Your task to perform on an android device: Go to calendar. Show me events next week Image 0: 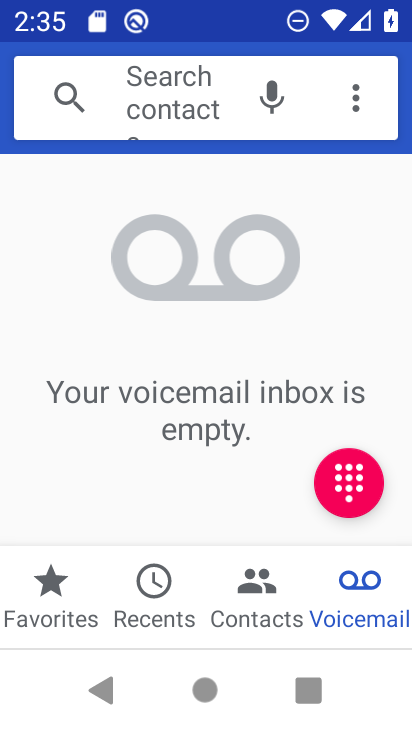
Step 0: press home button
Your task to perform on an android device: Go to calendar. Show me events next week Image 1: 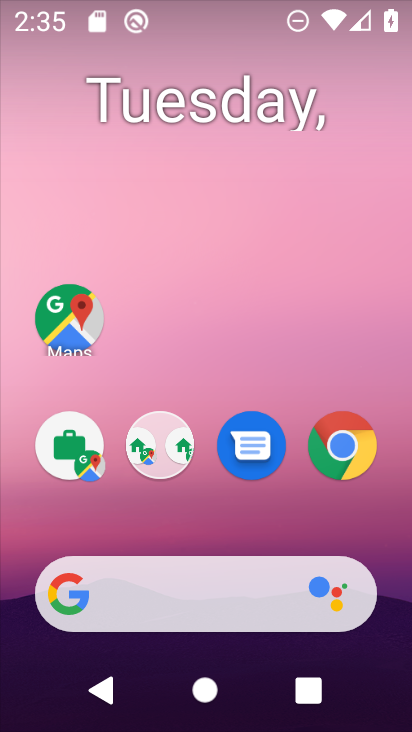
Step 1: drag from (271, 521) to (347, 193)
Your task to perform on an android device: Go to calendar. Show me events next week Image 2: 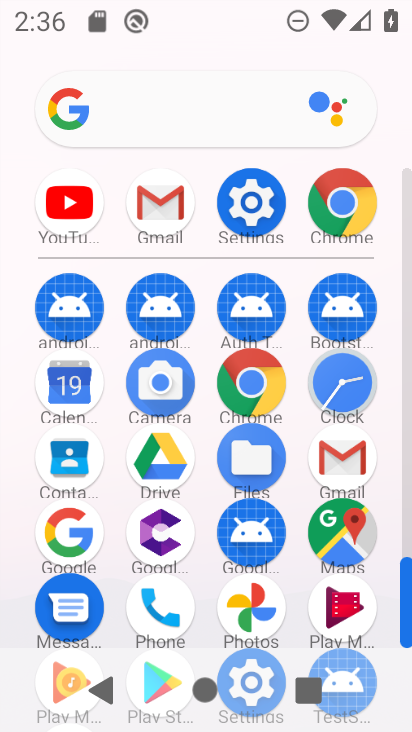
Step 2: click (62, 392)
Your task to perform on an android device: Go to calendar. Show me events next week Image 3: 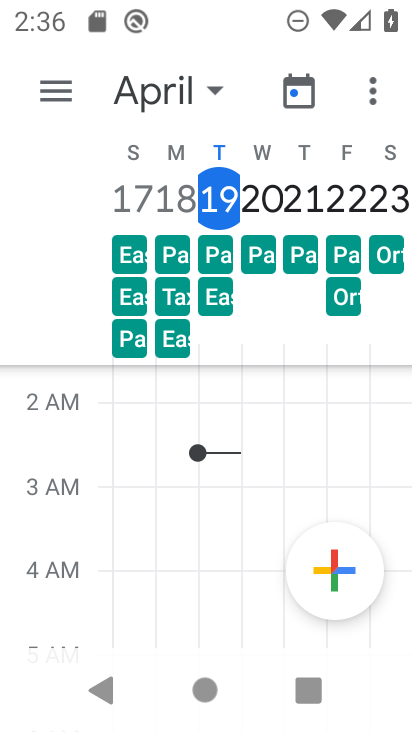
Step 3: click (28, 111)
Your task to perform on an android device: Go to calendar. Show me events next week Image 4: 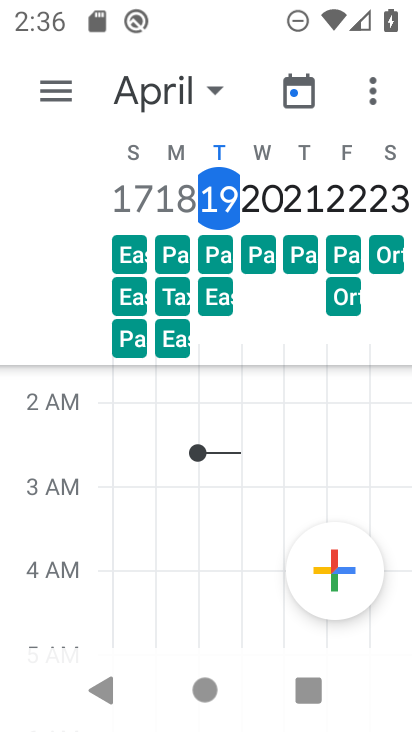
Step 4: click (52, 107)
Your task to perform on an android device: Go to calendar. Show me events next week Image 5: 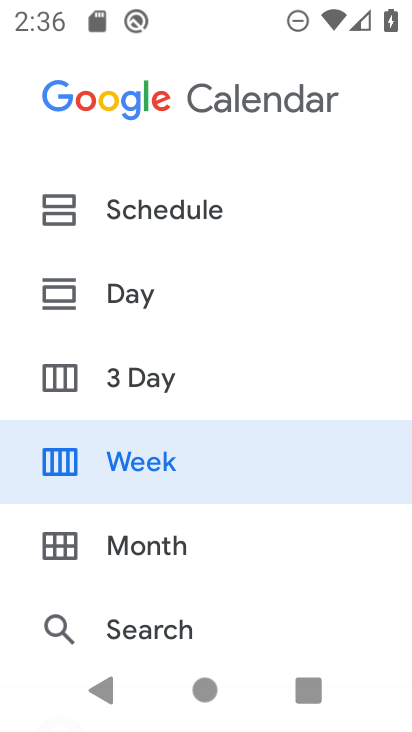
Step 5: click (165, 467)
Your task to perform on an android device: Go to calendar. Show me events next week Image 6: 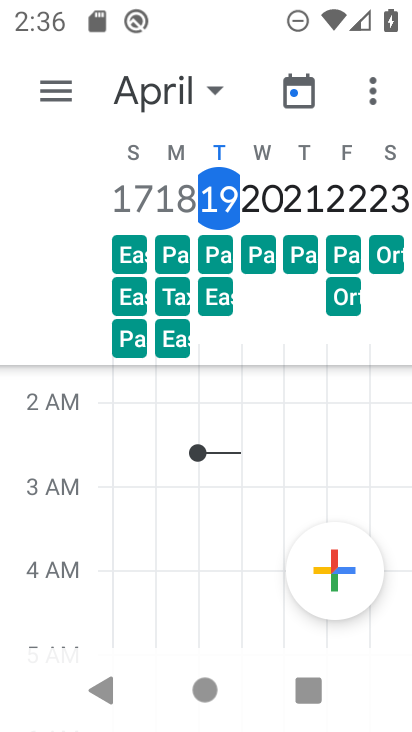
Step 6: drag from (210, 492) to (270, 235)
Your task to perform on an android device: Go to calendar. Show me events next week Image 7: 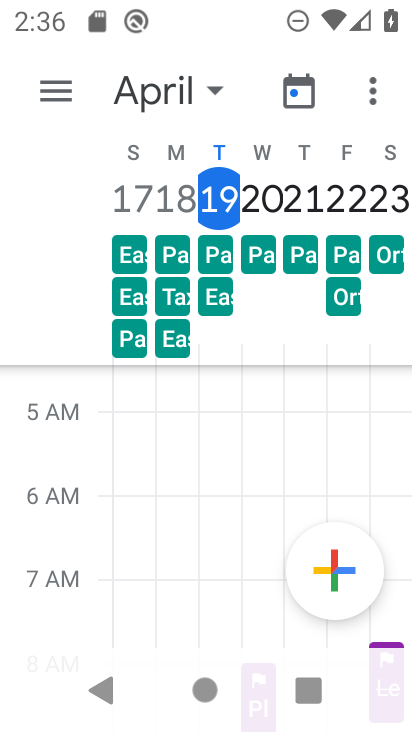
Step 7: drag from (212, 515) to (255, 309)
Your task to perform on an android device: Go to calendar. Show me events next week Image 8: 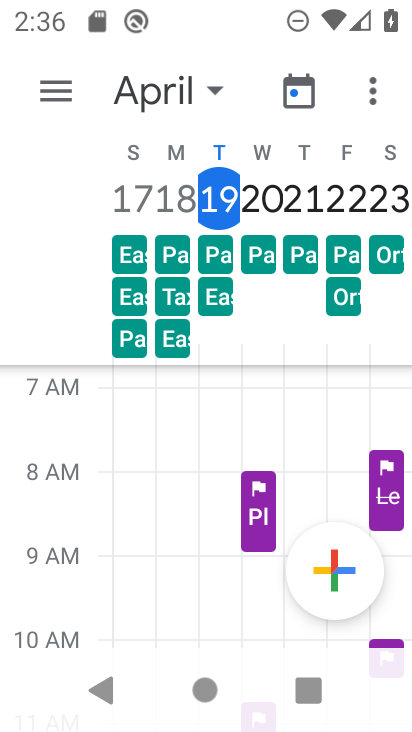
Step 8: click (217, 96)
Your task to perform on an android device: Go to calendar. Show me events next week Image 9: 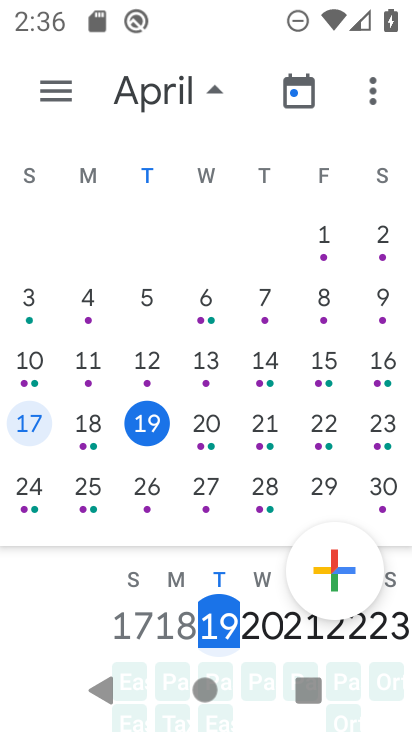
Step 9: drag from (307, 402) to (16, 401)
Your task to perform on an android device: Go to calendar. Show me events next week Image 10: 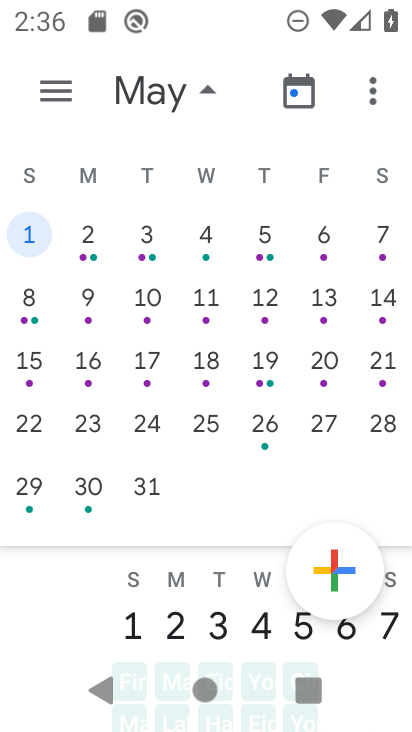
Step 10: drag from (63, 380) to (271, 401)
Your task to perform on an android device: Go to calendar. Show me events next week Image 11: 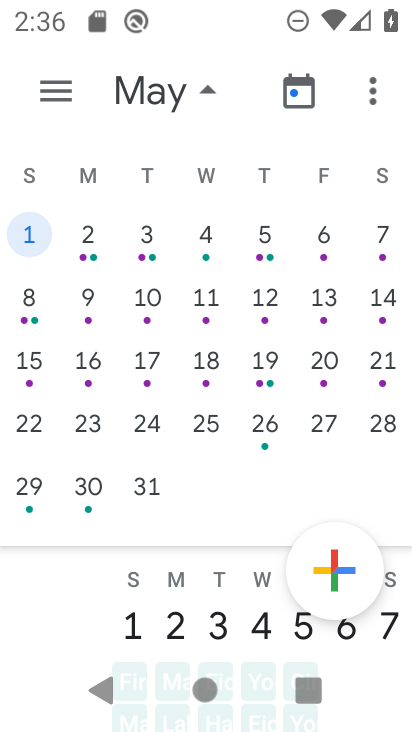
Step 11: drag from (110, 382) to (408, 362)
Your task to perform on an android device: Go to calendar. Show me events next week Image 12: 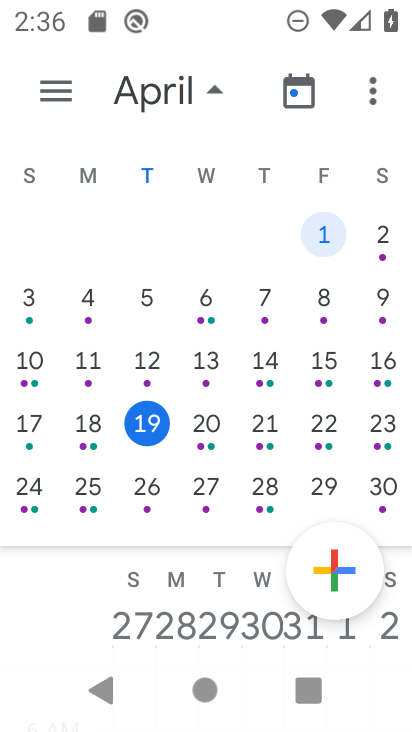
Step 12: click (33, 494)
Your task to perform on an android device: Go to calendar. Show me events next week Image 13: 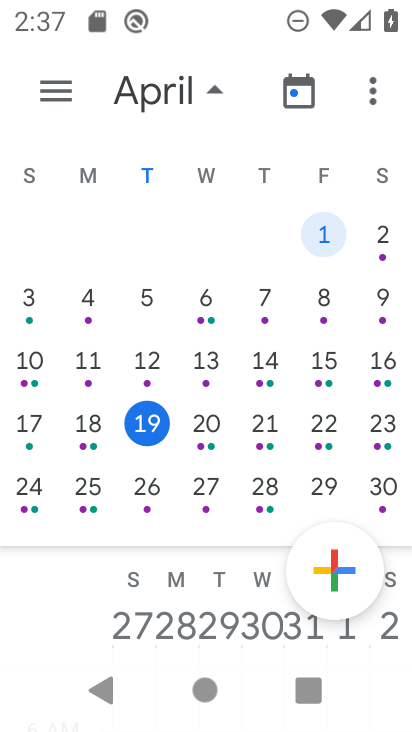
Step 13: click (42, 502)
Your task to perform on an android device: Go to calendar. Show me events next week Image 14: 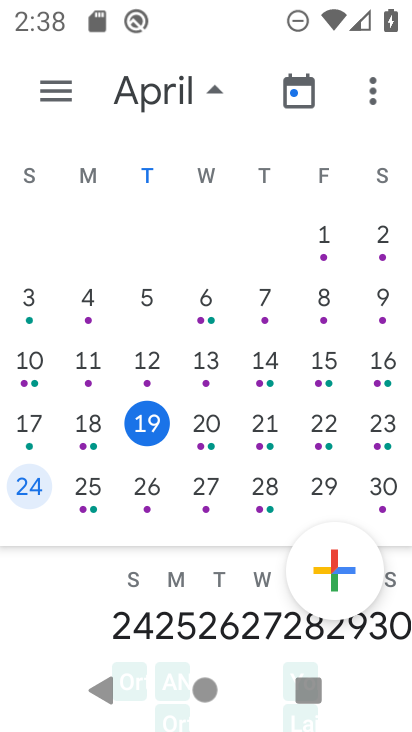
Step 14: drag from (158, 653) to (337, 259)
Your task to perform on an android device: Go to calendar. Show me events next week Image 15: 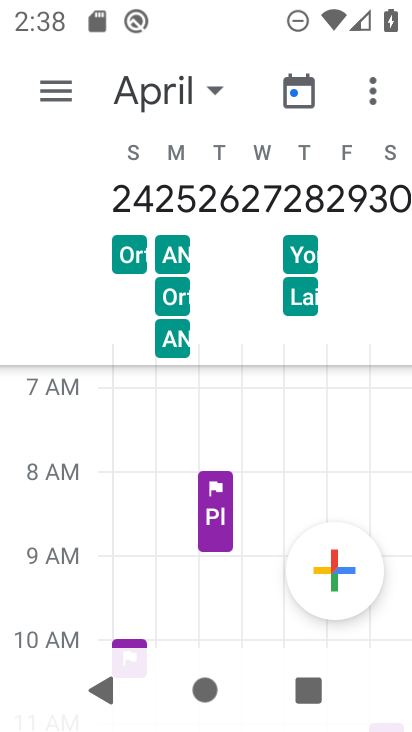
Step 15: click (232, 511)
Your task to perform on an android device: Go to calendar. Show me events next week Image 16: 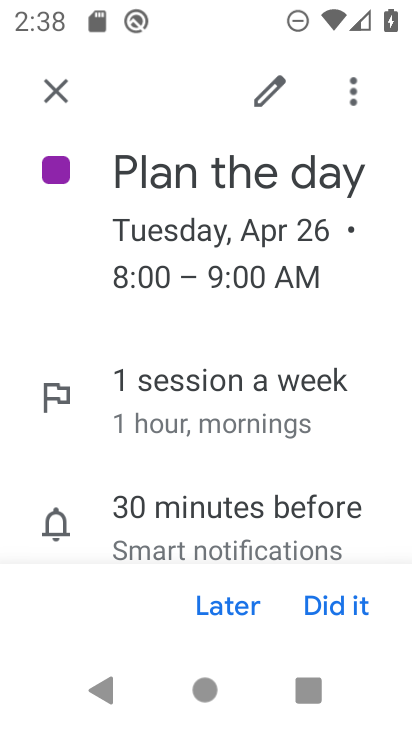
Step 16: task complete